Your task to perform on an android device: remove spam from my inbox in the gmail app Image 0: 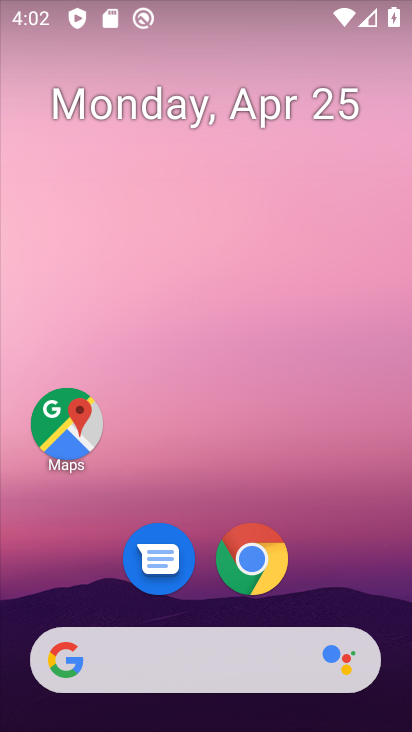
Step 0: drag from (197, 460) to (251, 19)
Your task to perform on an android device: remove spam from my inbox in the gmail app Image 1: 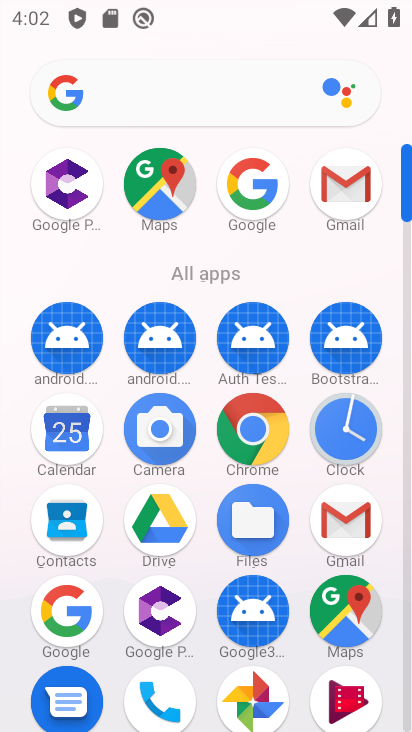
Step 1: click (343, 185)
Your task to perform on an android device: remove spam from my inbox in the gmail app Image 2: 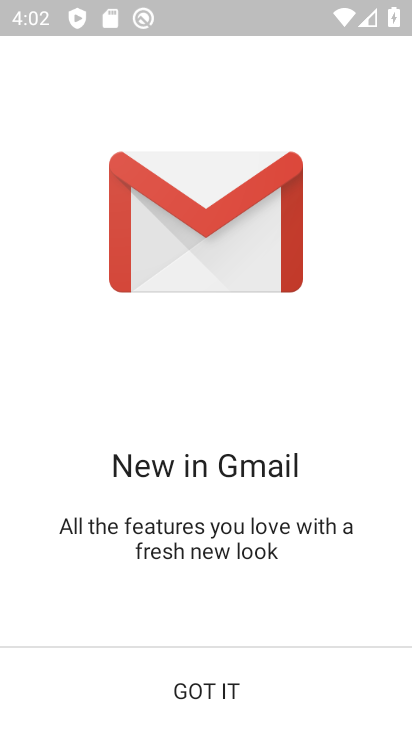
Step 2: click (196, 687)
Your task to perform on an android device: remove spam from my inbox in the gmail app Image 3: 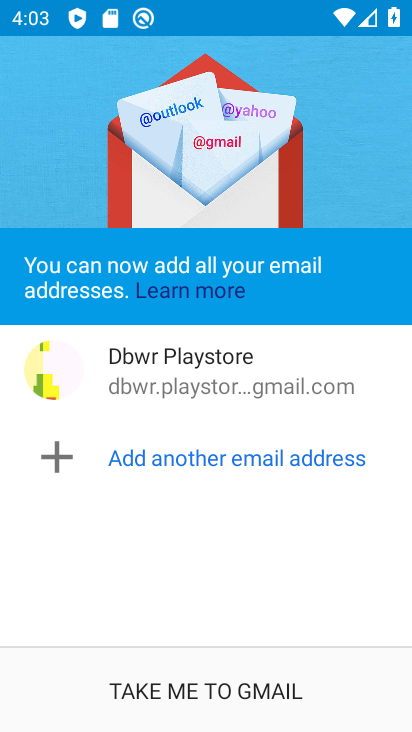
Step 3: click (196, 687)
Your task to perform on an android device: remove spam from my inbox in the gmail app Image 4: 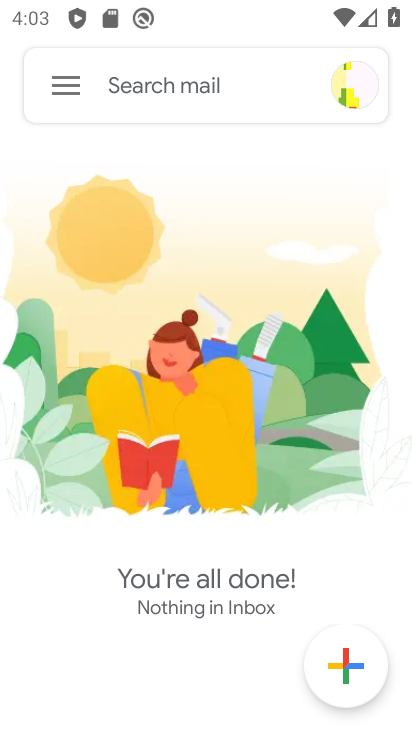
Step 4: click (63, 90)
Your task to perform on an android device: remove spam from my inbox in the gmail app Image 5: 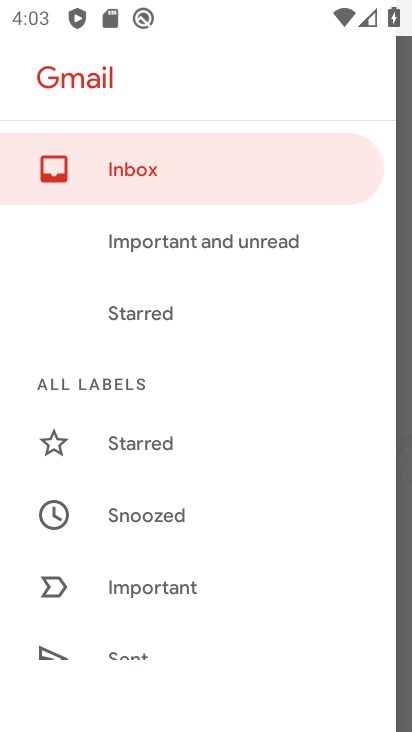
Step 5: drag from (177, 391) to (197, 270)
Your task to perform on an android device: remove spam from my inbox in the gmail app Image 6: 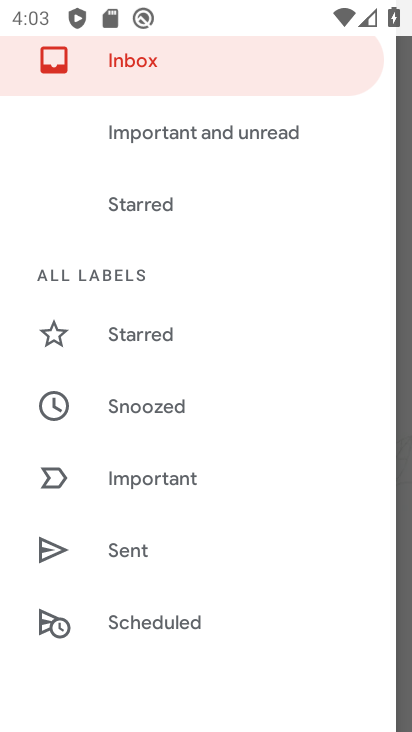
Step 6: drag from (143, 443) to (161, 357)
Your task to perform on an android device: remove spam from my inbox in the gmail app Image 7: 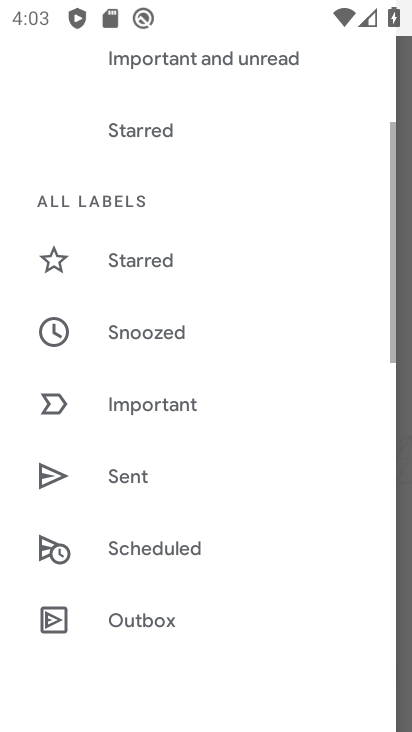
Step 7: drag from (133, 445) to (153, 345)
Your task to perform on an android device: remove spam from my inbox in the gmail app Image 8: 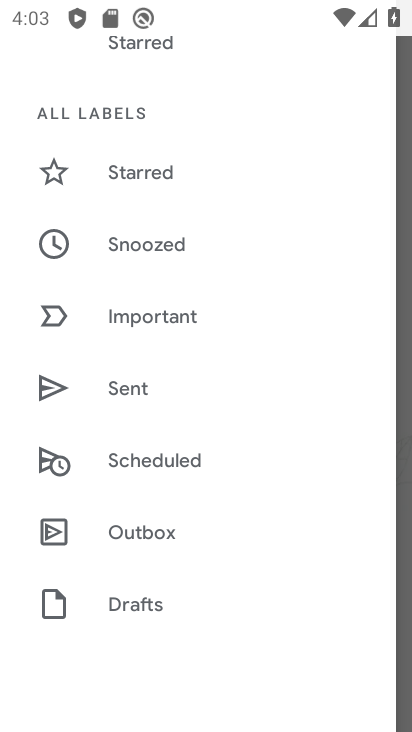
Step 8: drag from (130, 429) to (157, 285)
Your task to perform on an android device: remove spam from my inbox in the gmail app Image 9: 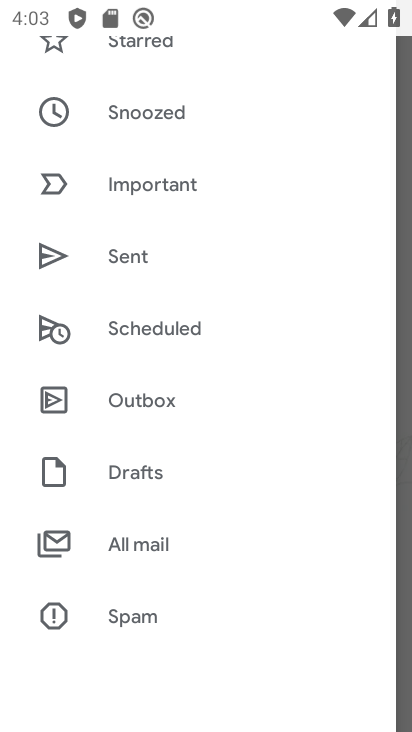
Step 9: drag from (143, 366) to (164, 285)
Your task to perform on an android device: remove spam from my inbox in the gmail app Image 10: 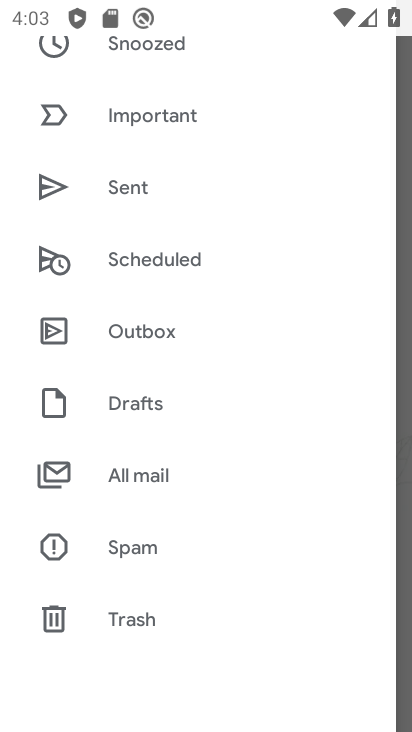
Step 10: drag from (131, 374) to (161, 301)
Your task to perform on an android device: remove spam from my inbox in the gmail app Image 11: 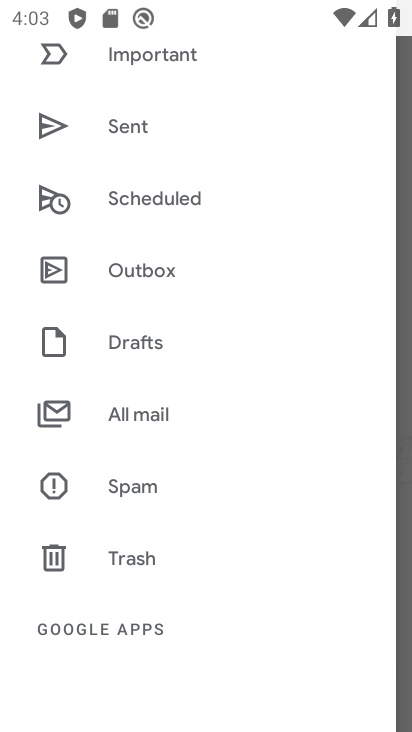
Step 11: drag from (130, 372) to (151, 288)
Your task to perform on an android device: remove spam from my inbox in the gmail app Image 12: 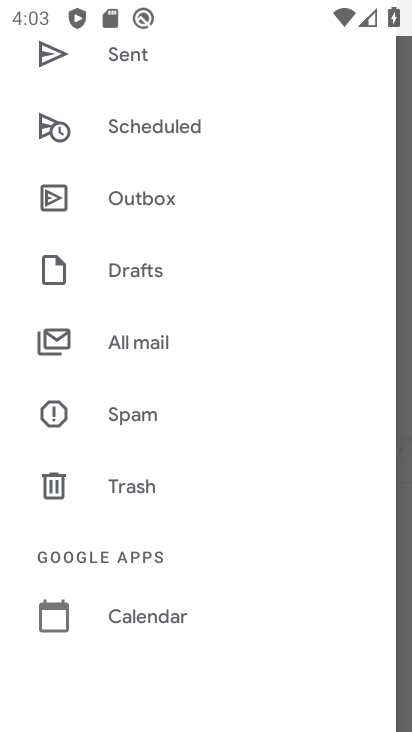
Step 12: click (154, 410)
Your task to perform on an android device: remove spam from my inbox in the gmail app Image 13: 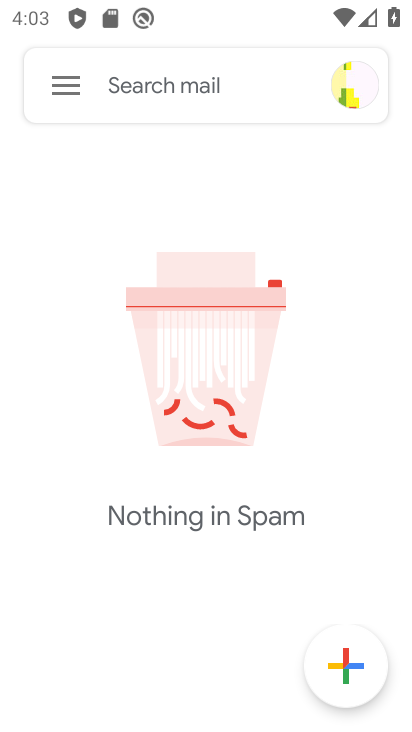
Step 13: task complete